Your task to perform on an android device: toggle pop-ups in chrome Image 0: 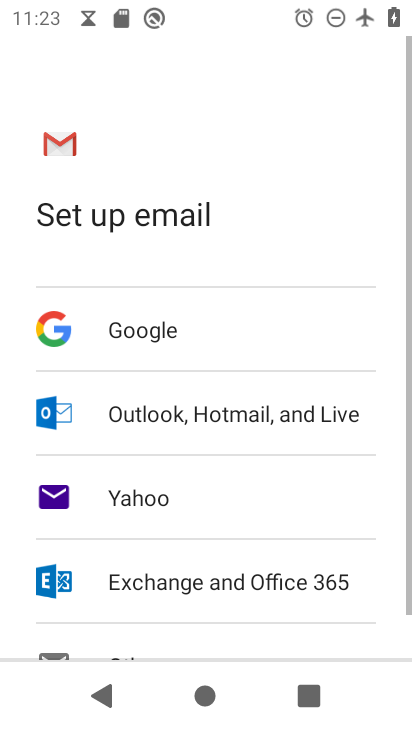
Step 0: press home button
Your task to perform on an android device: toggle pop-ups in chrome Image 1: 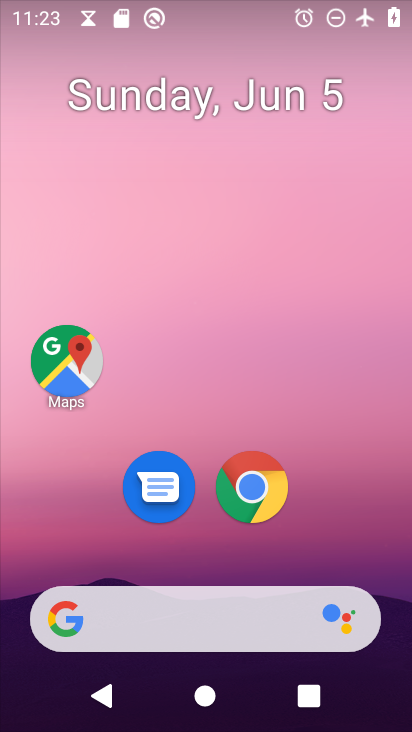
Step 1: click (256, 488)
Your task to perform on an android device: toggle pop-ups in chrome Image 2: 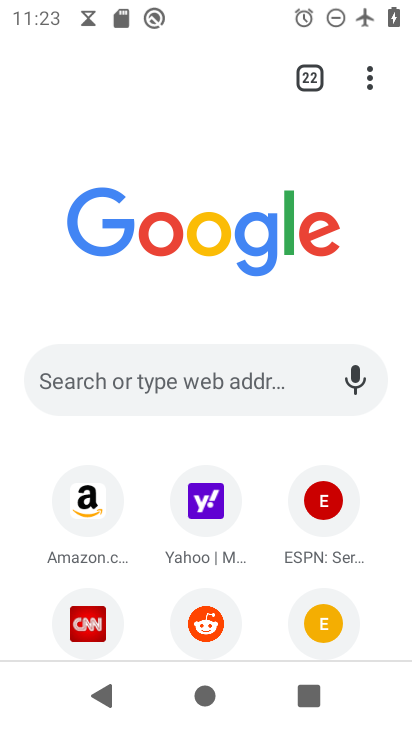
Step 2: click (371, 64)
Your task to perform on an android device: toggle pop-ups in chrome Image 3: 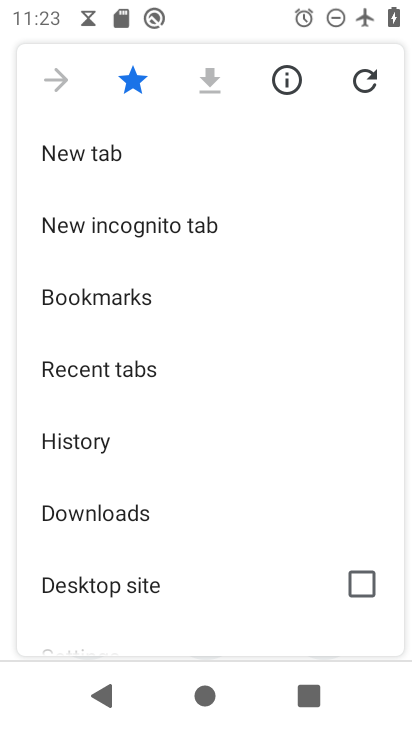
Step 3: drag from (178, 568) to (175, 273)
Your task to perform on an android device: toggle pop-ups in chrome Image 4: 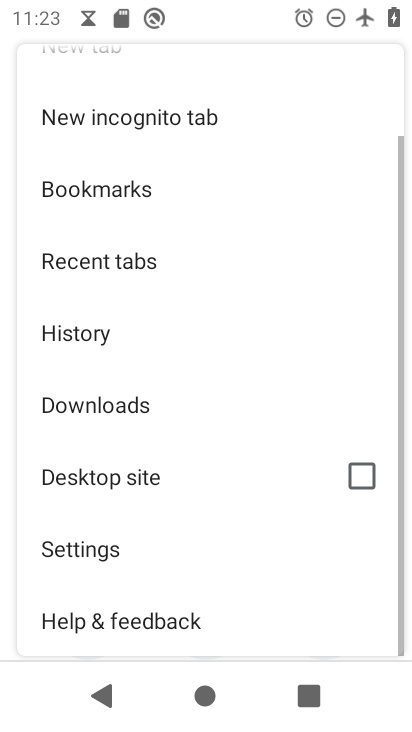
Step 4: click (112, 533)
Your task to perform on an android device: toggle pop-ups in chrome Image 5: 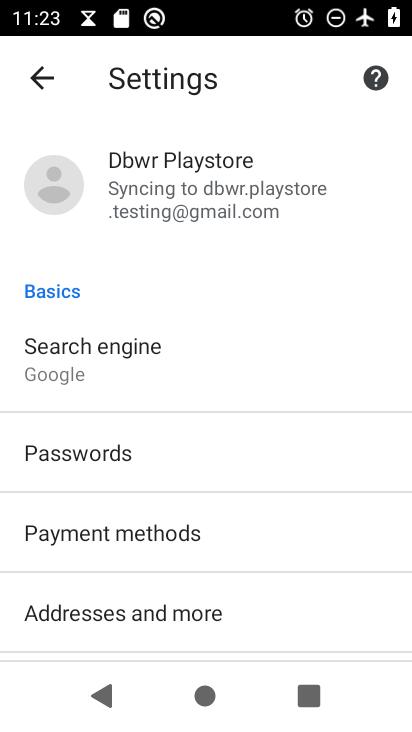
Step 5: drag from (231, 586) to (232, 247)
Your task to perform on an android device: toggle pop-ups in chrome Image 6: 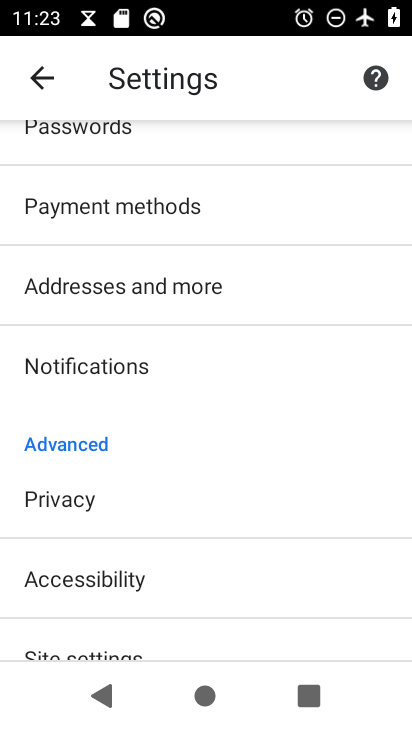
Step 6: drag from (152, 606) to (170, 255)
Your task to perform on an android device: toggle pop-ups in chrome Image 7: 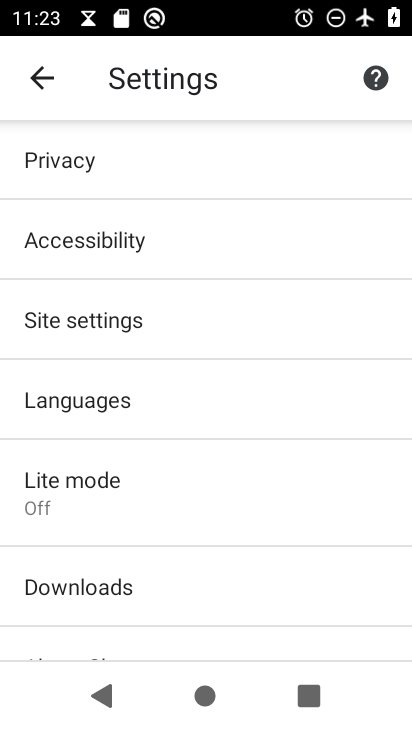
Step 7: click (154, 314)
Your task to perform on an android device: toggle pop-ups in chrome Image 8: 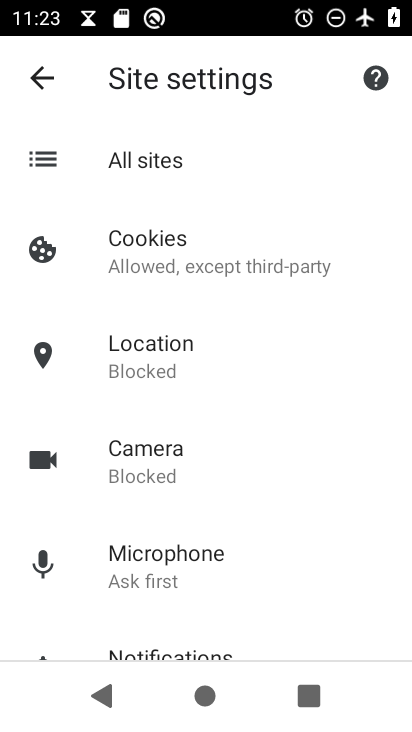
Step 8: drag from (249, 584) to (257, 282)
Your task to perform on an android device: toggle pop-ups in chrome Image 9: 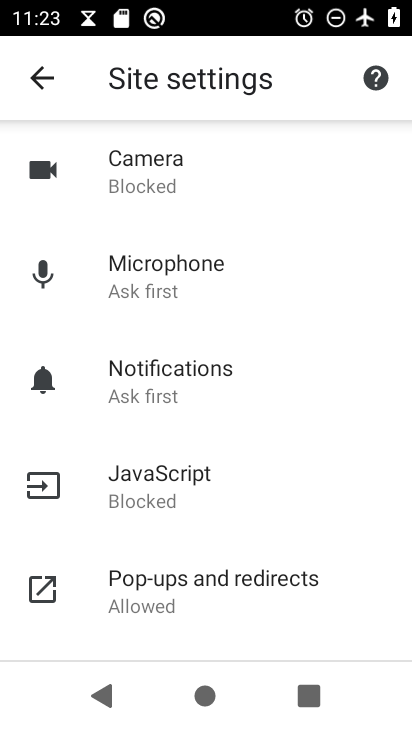
Step 9: click (177, 579)
Your task to perform on an android device: toggle pop-ups in chrome Image 10: 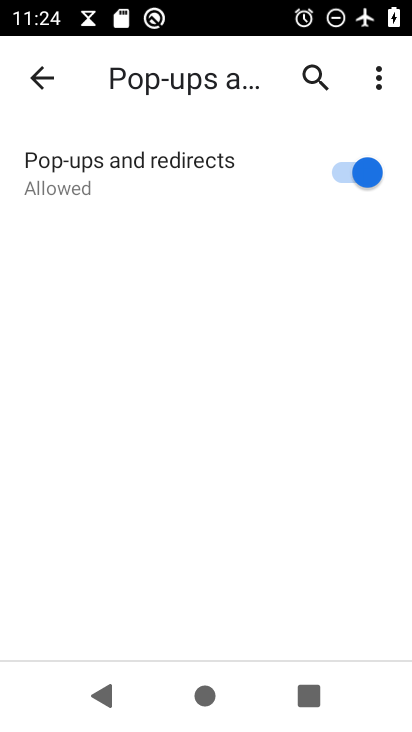
Step 10: click (339, 167)
Your task to perform on an android device: toggle pop-ups in chrome Image 11: 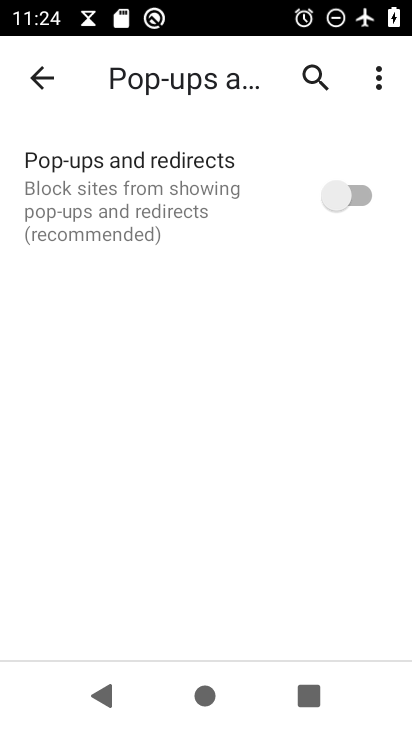
Step 11: task complete